Your task to perform on an android device: Open network settings Image 0: 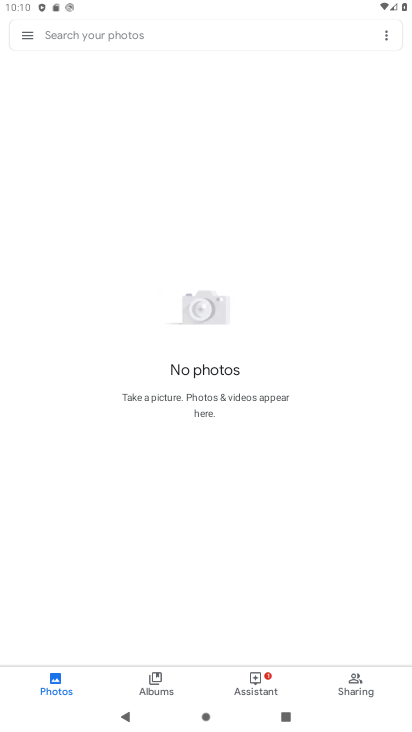
Step 0: press home button
Your task to perform on an android device: Open network settings Image 1: 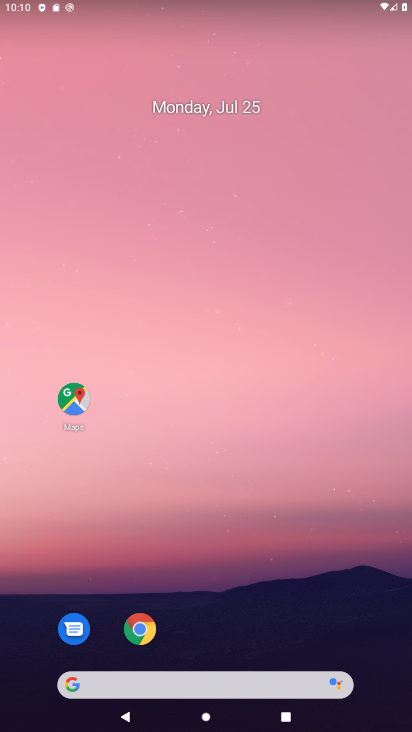
Step 1: drag from (232, 654) to (253, 8)
Your task to perform on an android device: Open network settings Image 2: 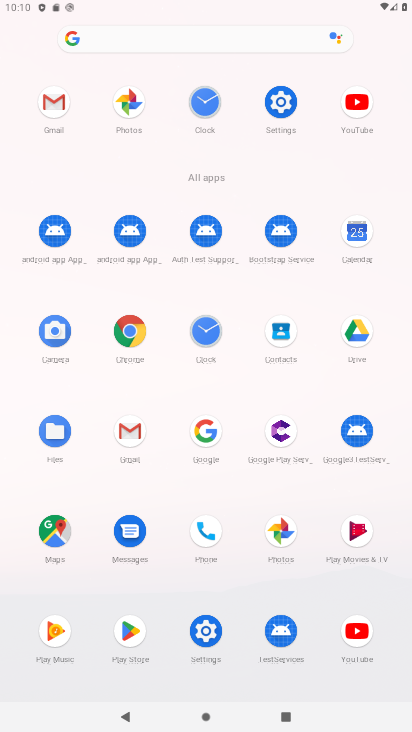
Step 2: click (281, 100)
Your task to perform on an android device: Open network settings Image 3: 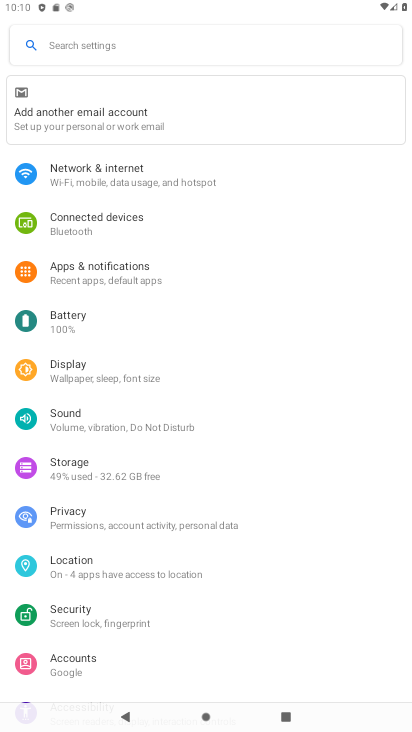
Step 3: click (94, 177)
Your task to perform on an android device: Open network settings Image 4: 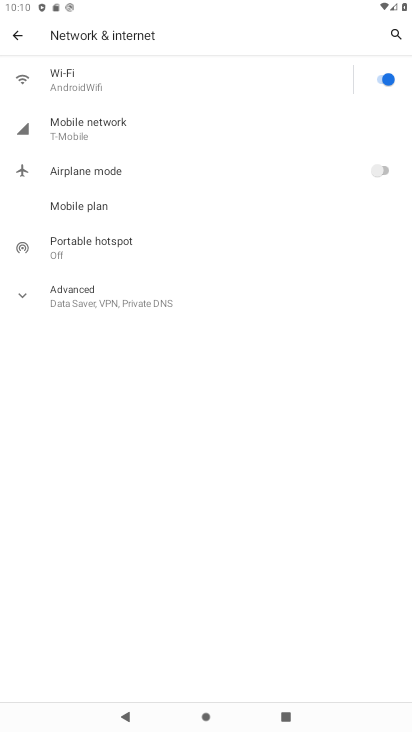
Step 4: click (81, 129)
Your task to perform on an android device: Open network settings Image 5: 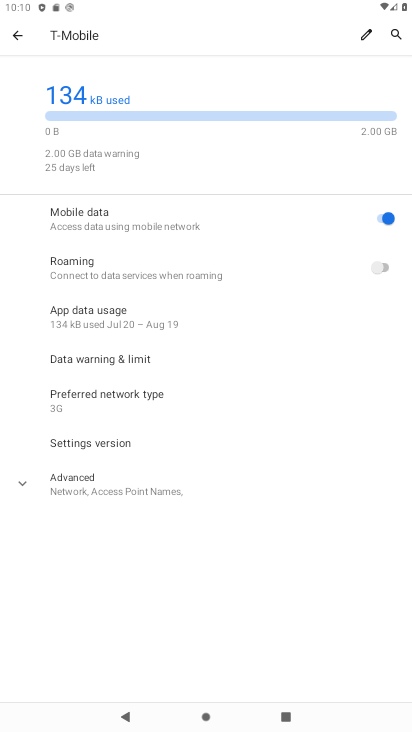
Step 5: click (24, 488)
Your task to perform on an android device: Open network settings Image 6: 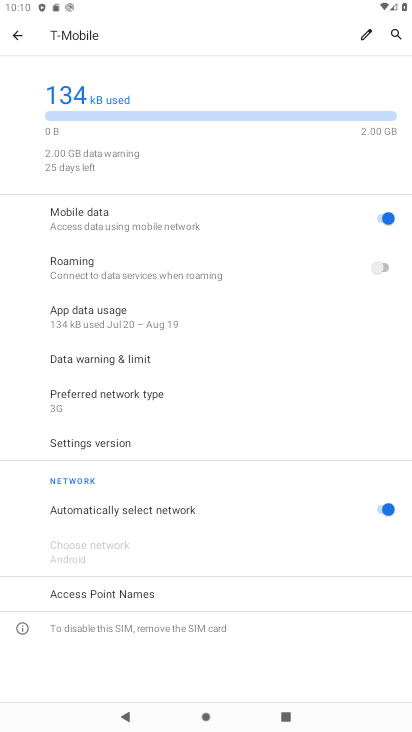
Step 6: task complete